Your task to perform on an android device: find snoozed emails in the gmail app Image 0: 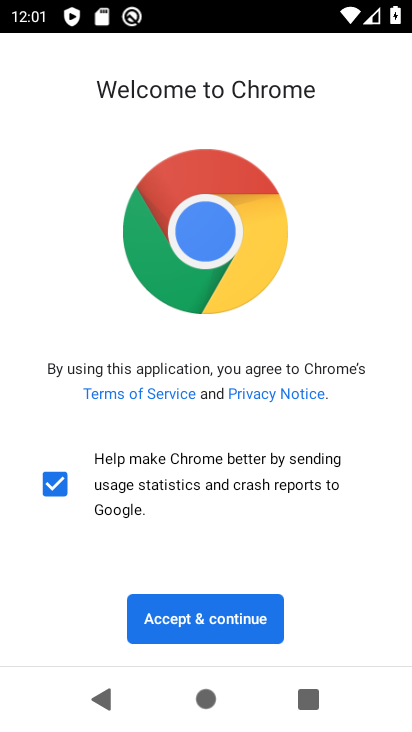
Step 0: press home button
Your task to perform on an android device: find snoozed emails in the gmail app Image 1: 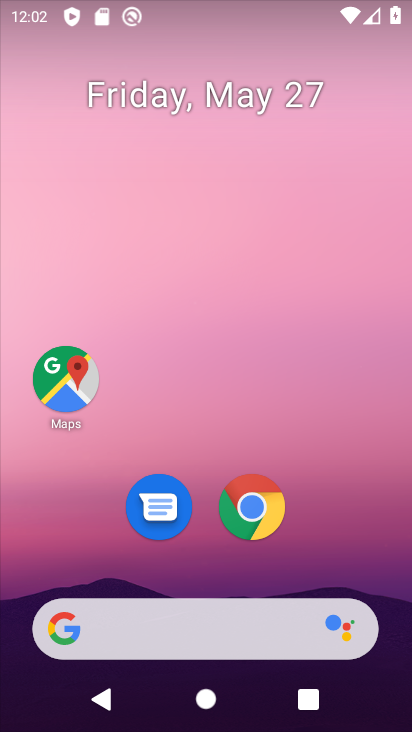
Step 1: drag from (339, 540) to (339, 113)
Your task to perform on an android device: find snoozed emails in the gmail app Image 2: 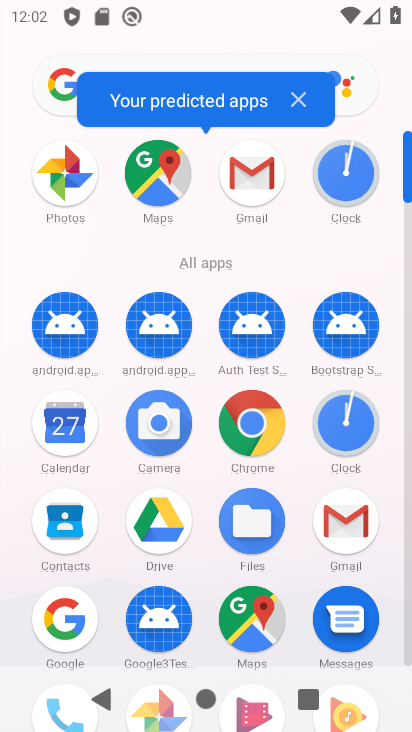
Step 2: click (347, 529)
Your task to perform on an android device: find snoozed emails in the gmail app Image 3: 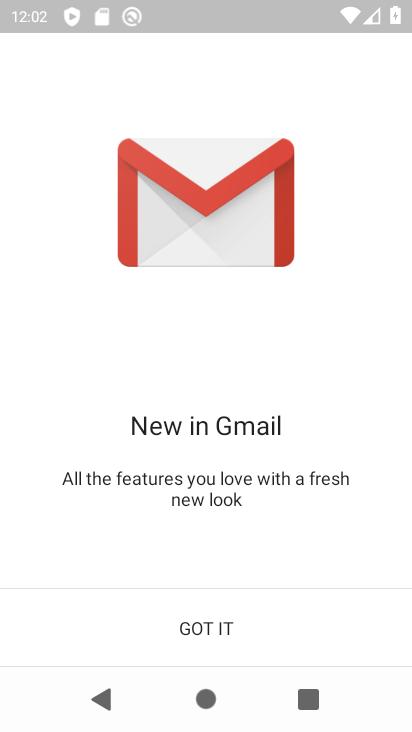
Step 3: click (197, 643)
Your task to perform on an android device: find snoozed emails in the gmail app Image 4: 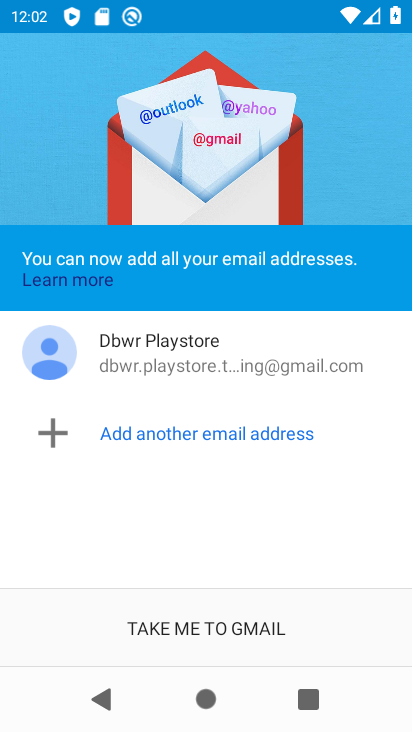
Step 4: click (227, 617)
Your task to perform on an android device: find snoozed emails in the gmail app Image 5: 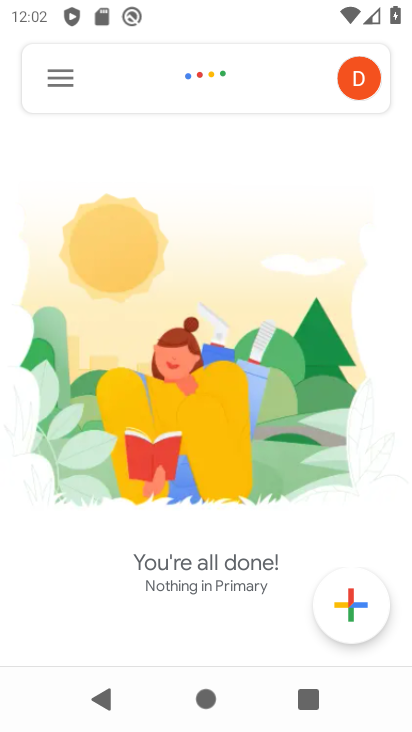
Step 5: click (53, 77)
Your task to perform on an android device: find snoozed emails in the gmail app Image 6: 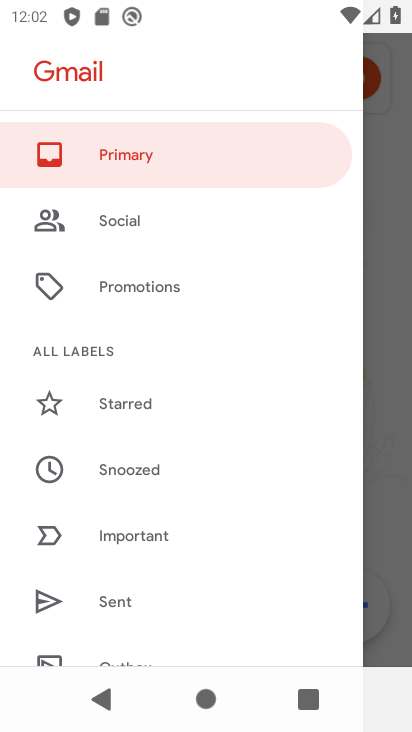
Step 6: drag from (202, 577) to (214, 319)
Your task to perform on an android device: find snoozed emails in the gmail app Image 7: 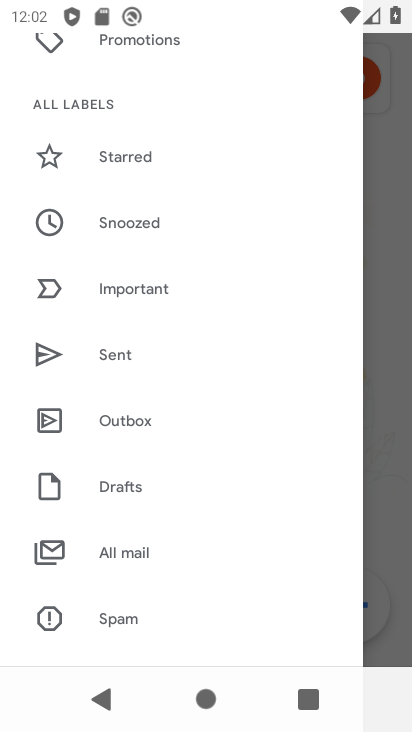
Step 7: click (132, 221)
Your task to perform on an android device: find snoozed emails in the gmail app Image 8: 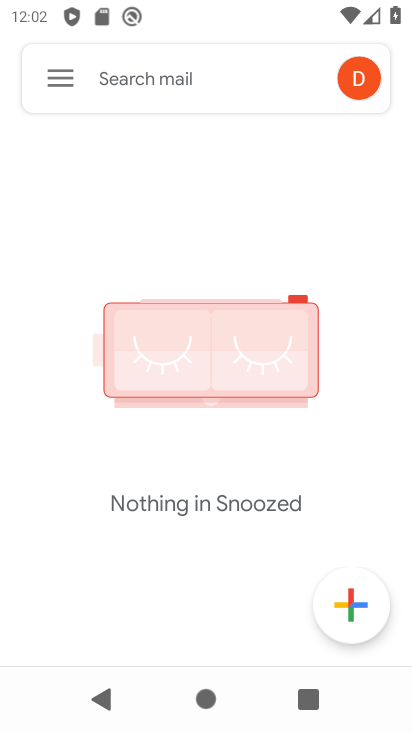
Step 8: task complete